Your task to perform on an android device: set default search engine in the chrome app Image 0: 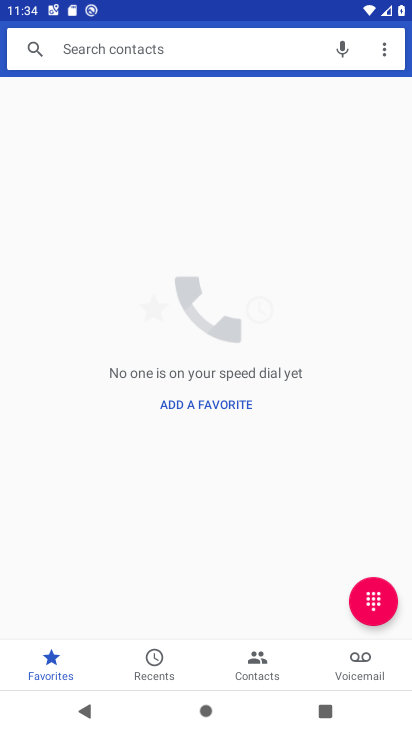
Step 0: press home button
Your task to perform on an android device: set default search engine in the chrome app Image 1: 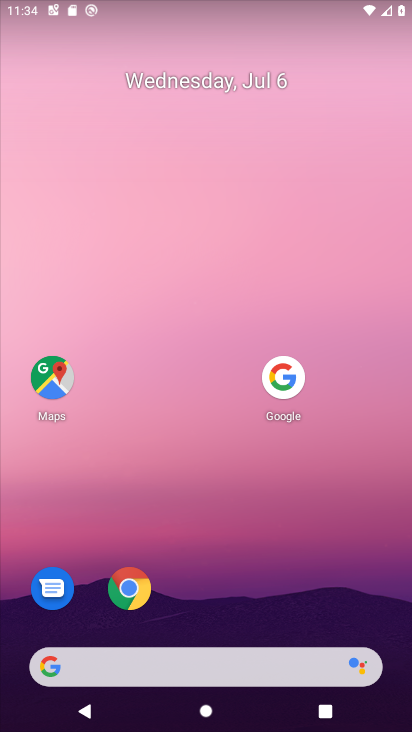
Step 1: click (127, 595)
Your task to perform on an android device: set default search engine in the chrome app Image 2: 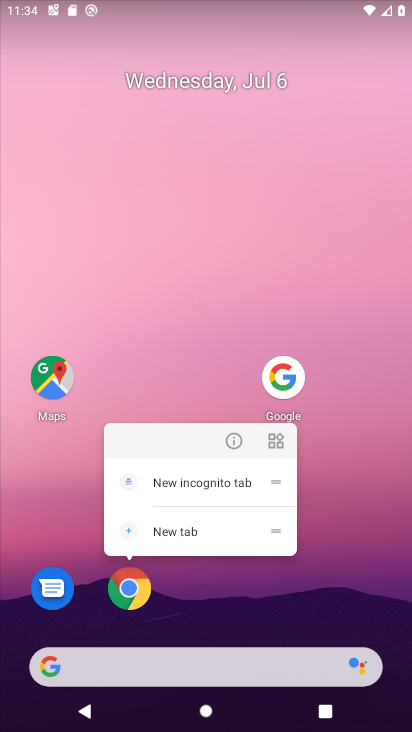
Step 2: click (127, 596)
Your task to perform on an android device: set default search engine in the chrome app Image 3: 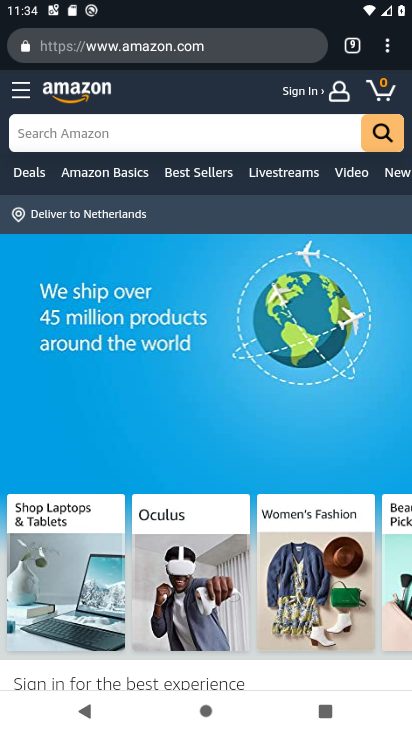
Step 3: click (387, 62)
Your task to perform on an android device: set default search engine in the chrome app Image 4: 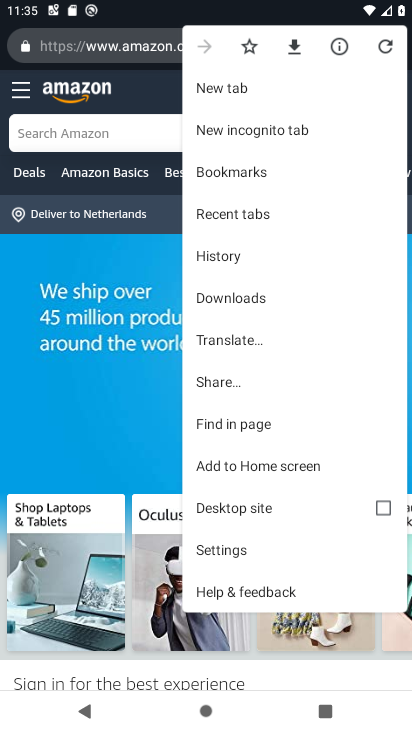
Step 4: click (221, 547)
Your task to perform on an android device: set default search engine in the chrome app Image 5: 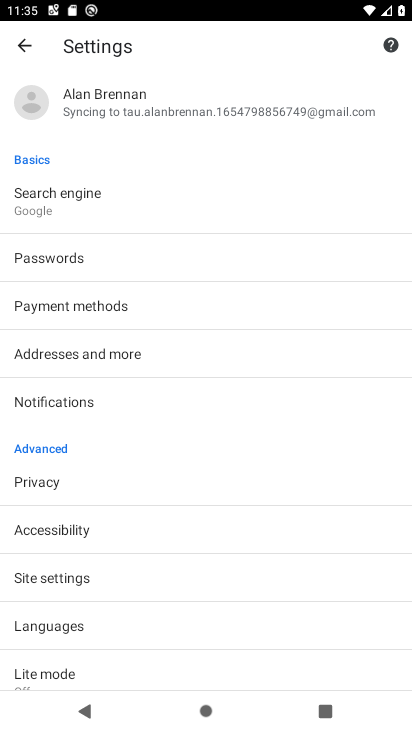
Step 5: click (65, 189)
Your task to perform on an android device: set default search engine in the chrome app Image 6: 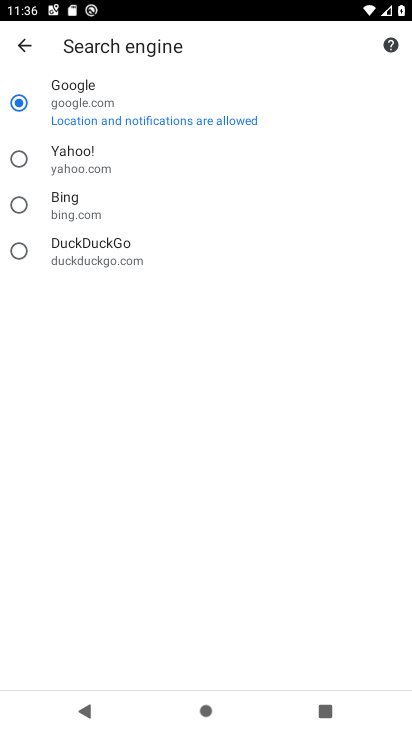
Step 6: click (22, 157)
Your task to perform on an android device: set default search engine in the chrome app Image 7: 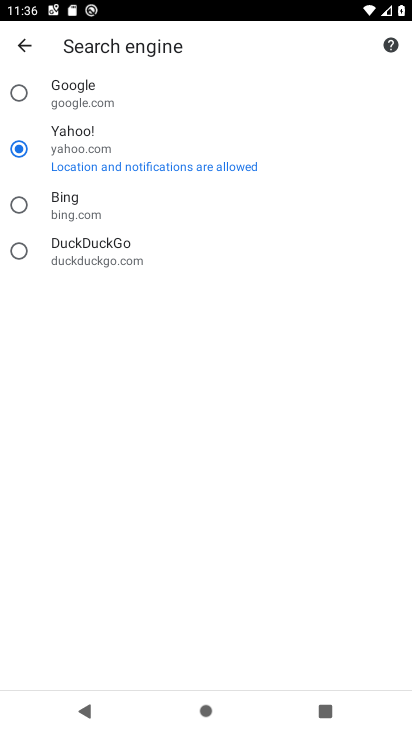
Step 7: task complete